Your task to perform on an android device: add a label to a message in the gmail app Image 0: 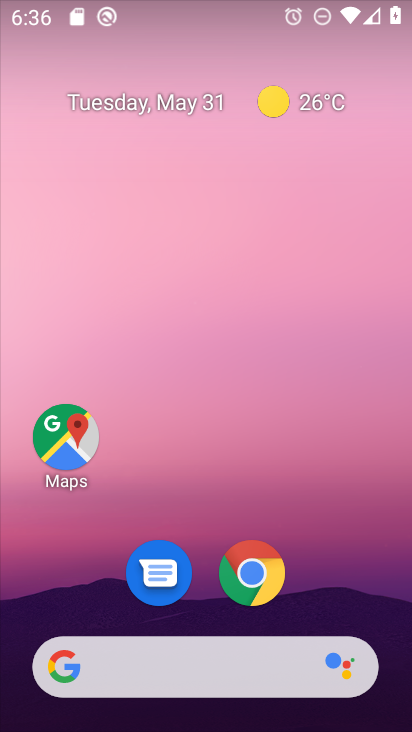
Step 0: drag from (397, 677) to (325, 96)
Your task to perform on an android device: add a label to a message in the gmail app Image 1: 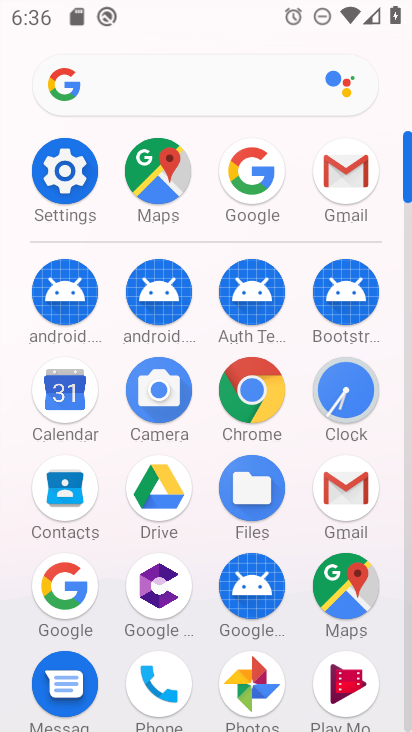
Step 1: click (357, 483)
Your task to perform on an android device: add a label to a message in the gmail app Image 2: 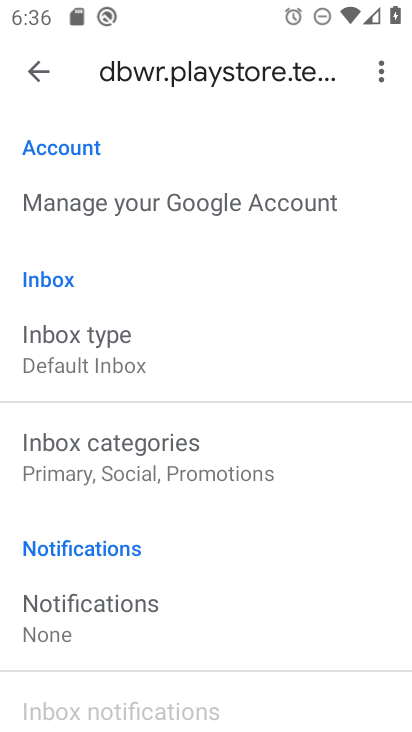
Step 2: task complete